Your task to perform on an android device: Open Youtube and go to the subscriptions tab Image 0: 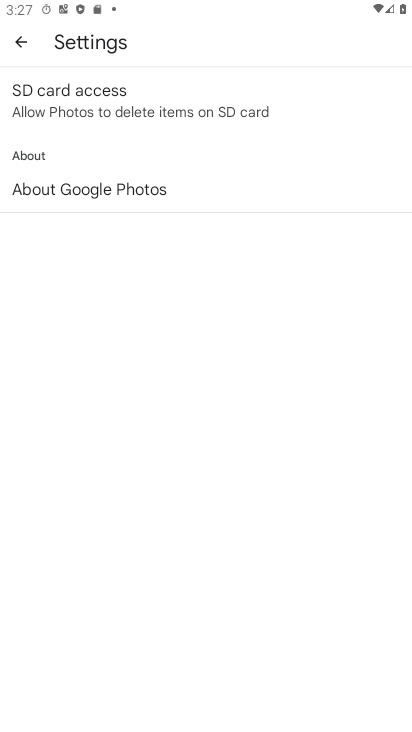
Step 0: press home button
Your task to perform on an android device: Open Youtube and go to the subscriptions tab Image 1: 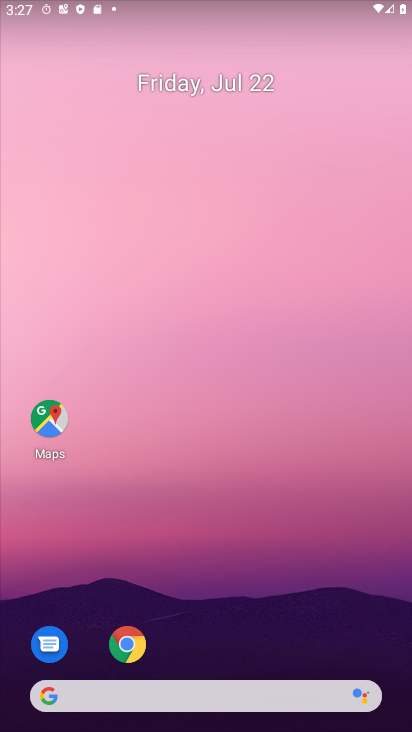
Step 1: drag from (207, 653) to (160, 72)
Your task to perform on an android device: Open Youtube and go to the subscriptions tab Image 2: 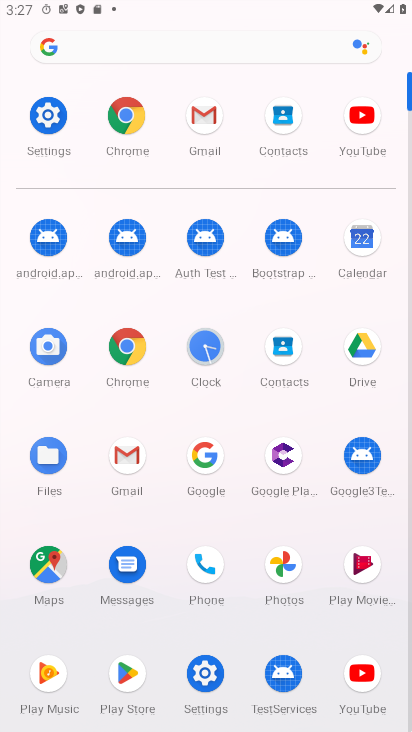
Step 2: click (367, 678)
Your task to perform on an android device: Open Youtube and go to the subscriptions tab Image 3: 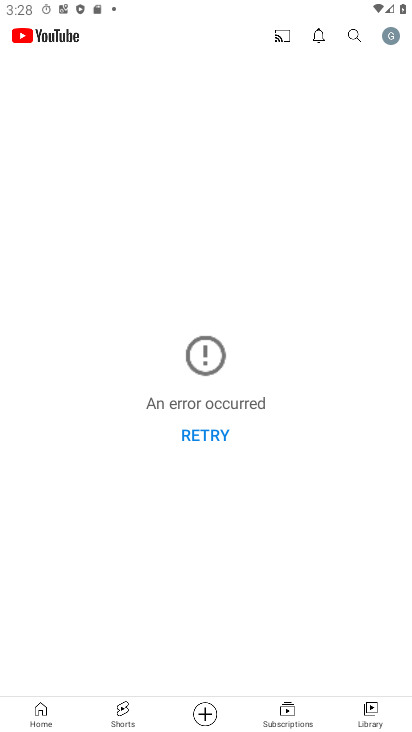
Step 3: click (285, 717)
Your task to perform on an android device: Open Youtube and go to the subscriptions tab Image 4: 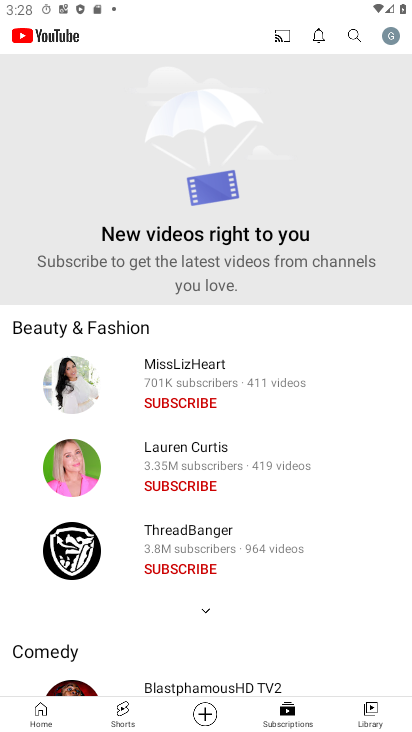
Step 4: task complete